Your task to perform on an android device: change timer sound Image 0: 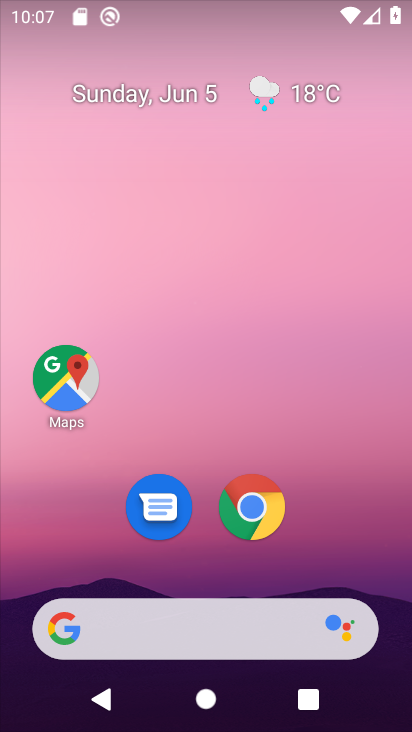
Step 0: drag from (203, 572) to (301, 84)
Your task to perform on an android device: change timer sound Image 1: 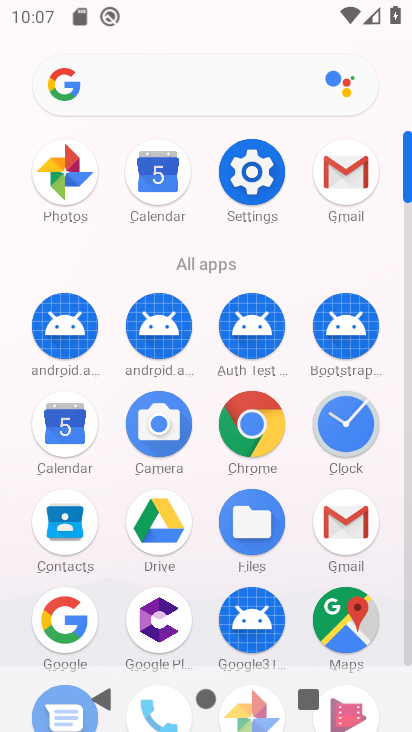
Step 1: click (265, 194)
Your task to perform on an android device: change timer sound Image 2: 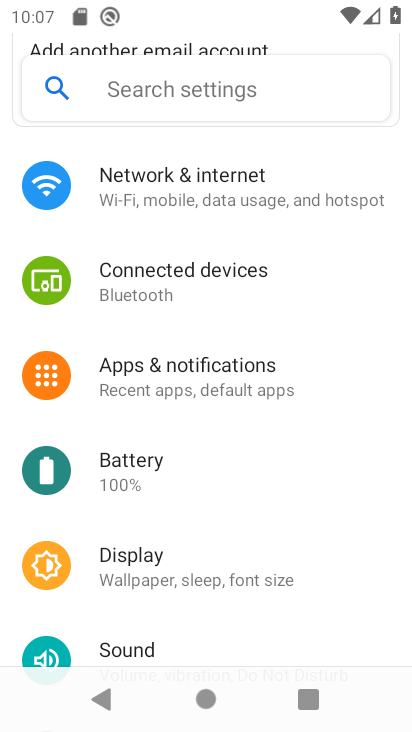
Step 2: drag from (216, 557) to (224, 156)
Your task to perform on an android device: change timer sound Image 3: 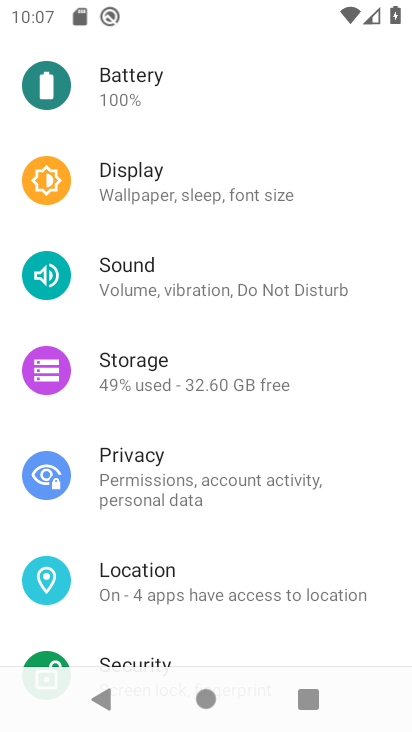
Step 3: press home button
Your task to perform on an android device: change timer sound Image 4: 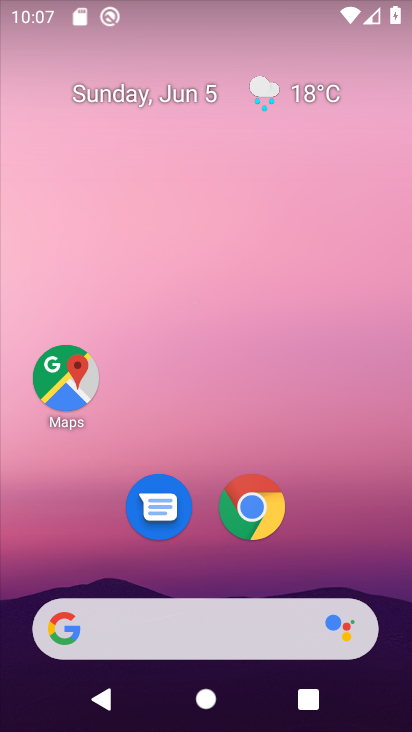
Step 4: drag from (278, 581) to (407, 54)
Your task to perform on an android device: change timer sound Image 5: 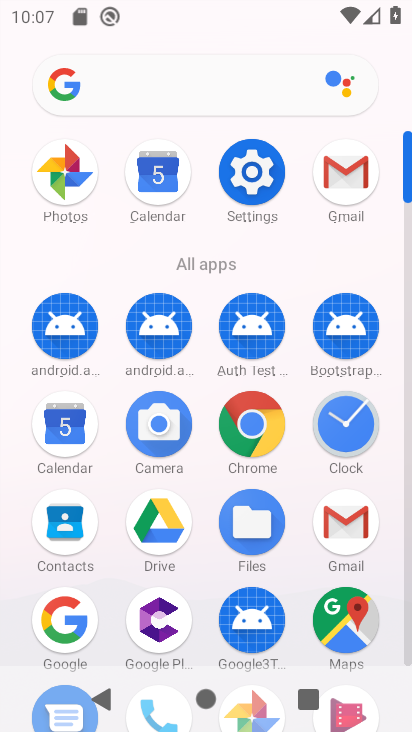
Step 5: click (350, 425)
Your task to perform on an android device: change timer sound Image 6: 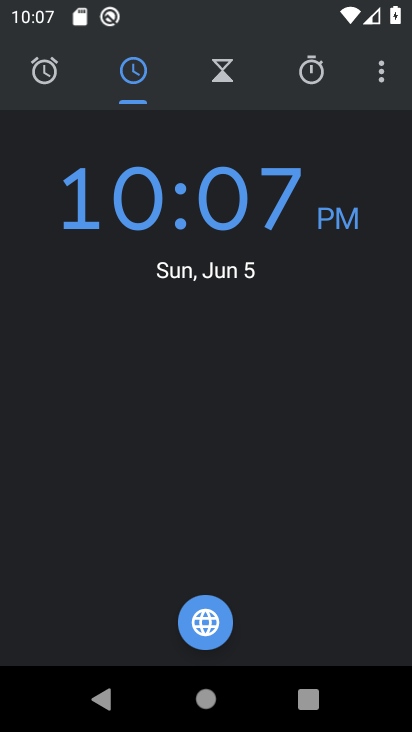
Step 6: click (383, 85)
Your task to perform on an android device: change timer sound Image 7: 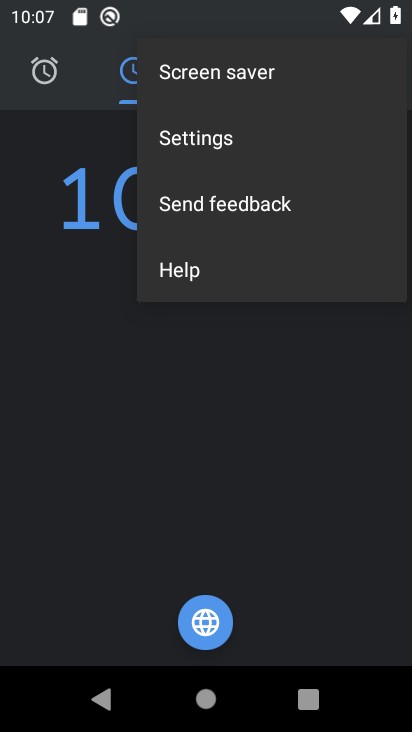
Step 7: click (260, 156)
Your task to perform on an android device: change timer sound Image 8: 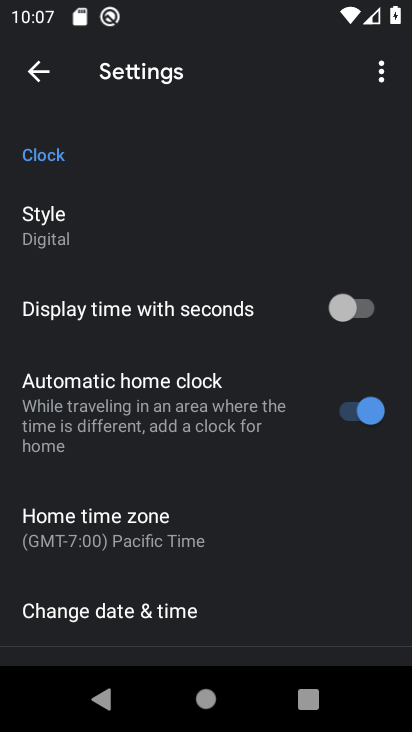
Step 8: drag from (167, 560) to (171, 346)
Your task to perform on an android device: change timer sound Image 9: 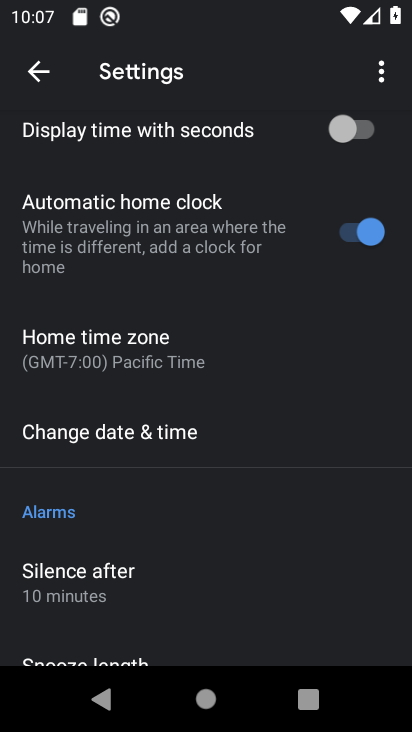
Step 9: drag from (136, 536) to (164, 283)
Your task to perform on an android device: change timer sound Image 10: 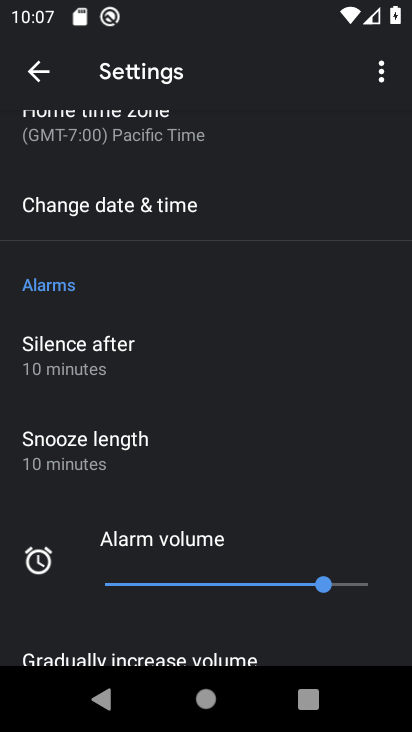
Step 10: drag from (132, 551) to (242, 64)
Your task to perform on an android device: change timer sound Image 11: 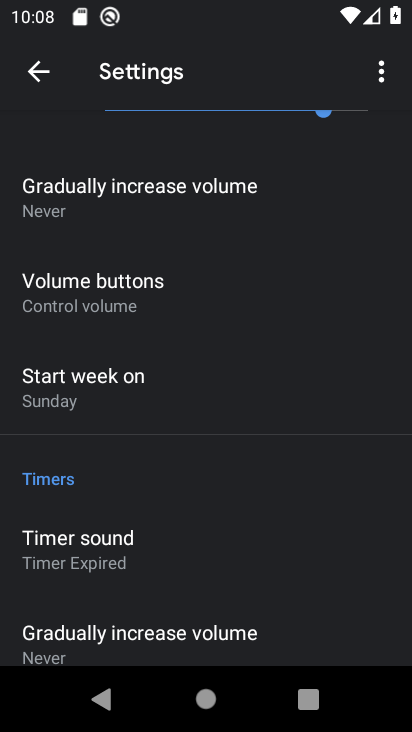
Step 11: click (115, 561)
Your task to perform on an android device: change timer sound Image 12: 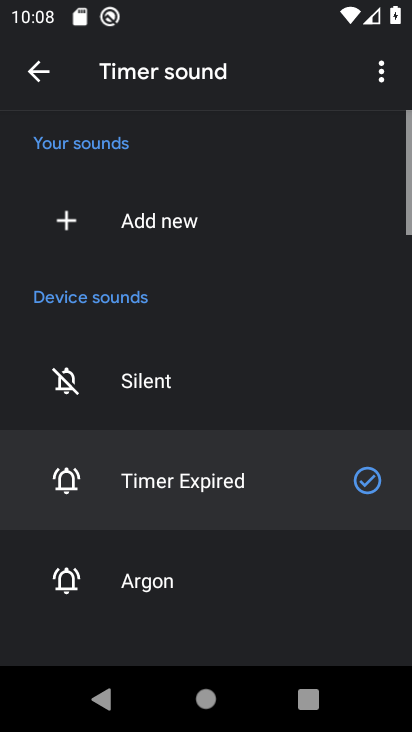
Step 12: drag from (145, 515) to (197, 235)
Your task to perform on an android device: change timer sound Image 13: 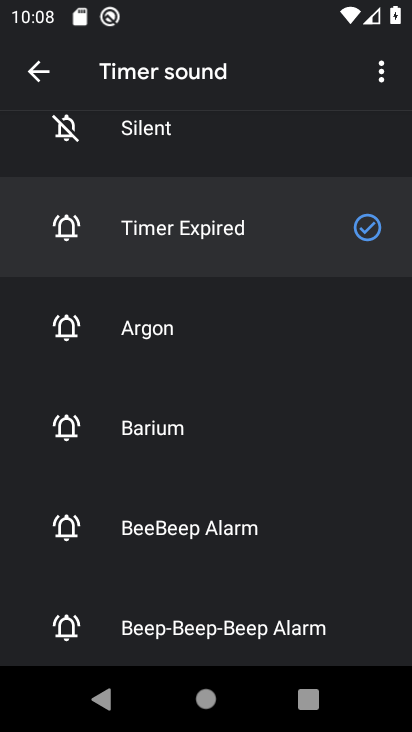
Step 13: click (169, 434)
Your task to perform on an android device: change timer sound Image 14: 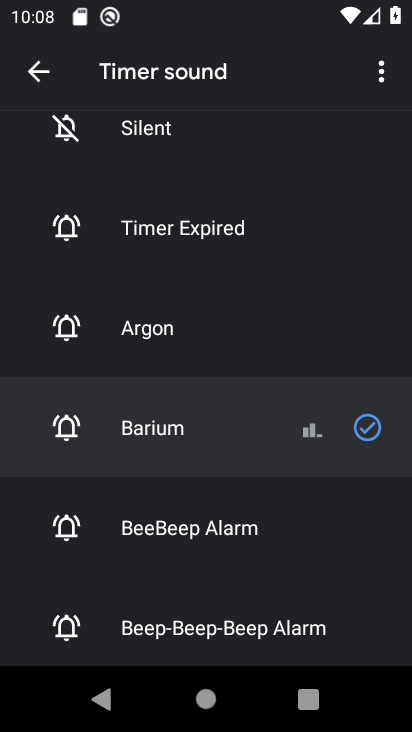
Step 14: task complete